Your task to perform on an android device: check battery use Image 0: 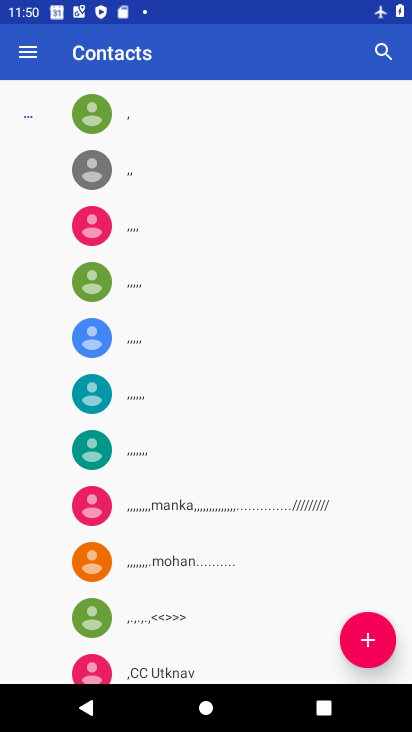
Step 0: press home button
Your task to perform on an android device: check battery use Image 1: 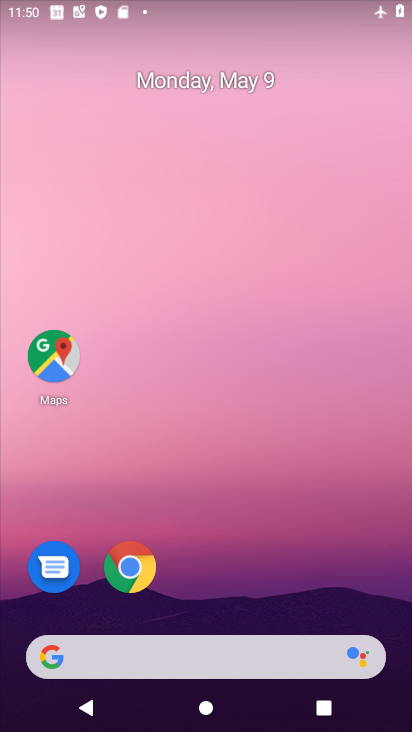
Step 1: drag from (388, 635) to (308, 56)
Your task to perform on an android device: check battery use Image 2: 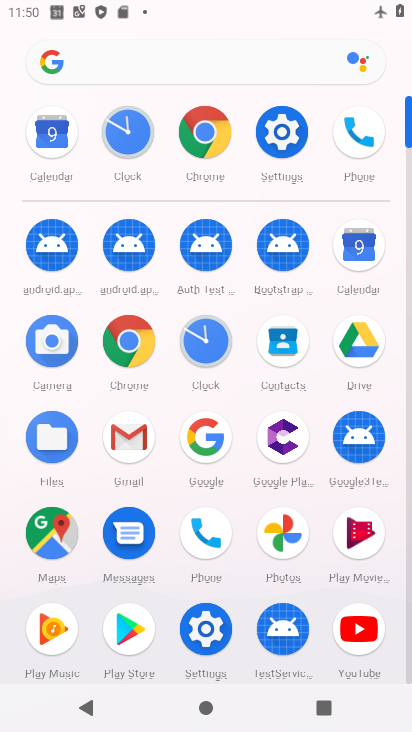
Step 2: click (271, 148)
Your task to perform on an android device: check battery use Image 3: 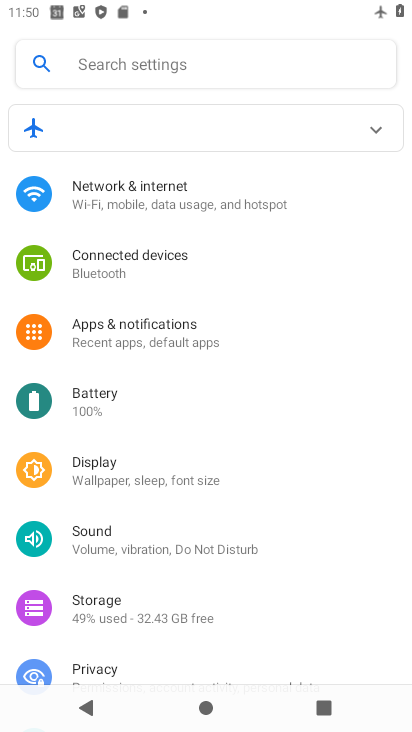
Step 3: click (131, 404)
Your task to perform on an android device: check battery use Image 4: 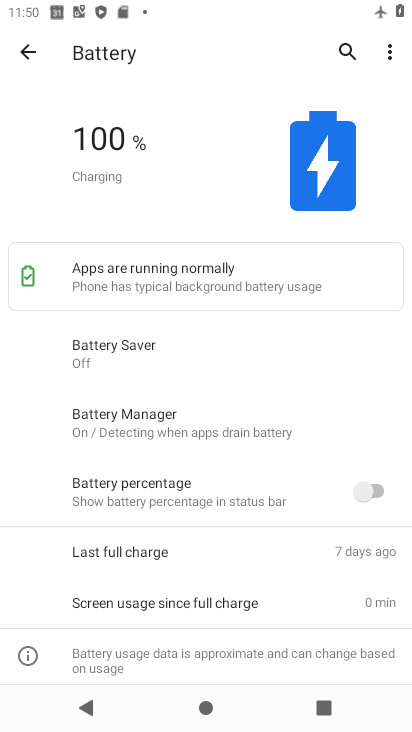
Step 4: click (129, 145)
Your task to perform on an android device: check battery use Image 5: 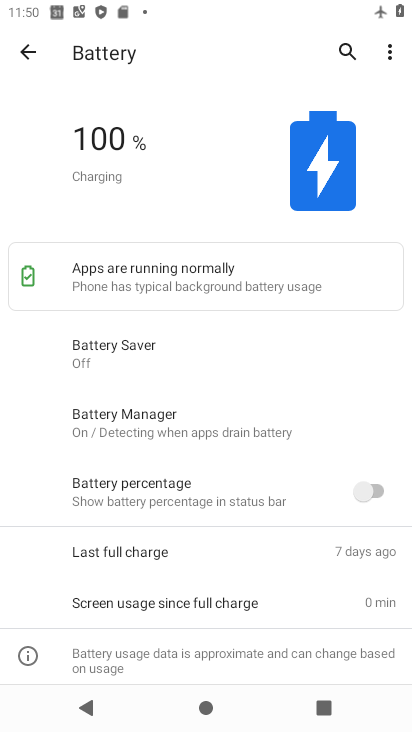
Step 5: task complete